Your task to perform on an android device: Open the Play Movies app and select the watchlist tab. Image 0: 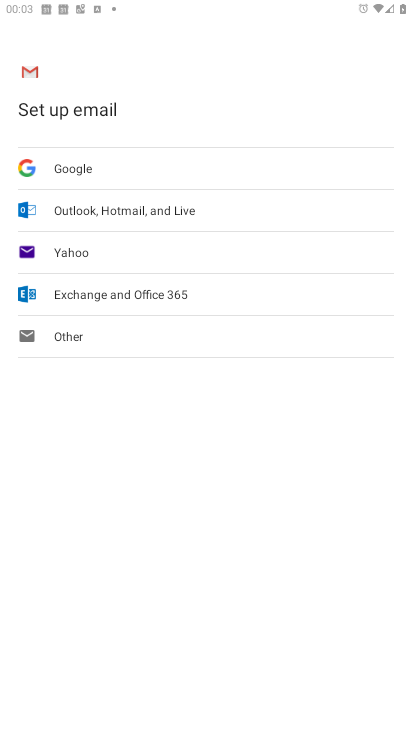
Step 0: drag from (260, 707) to (192, 163)
Your task to perform on an android device: Open the Play Movies app and select the watchlist tab. Image 1: 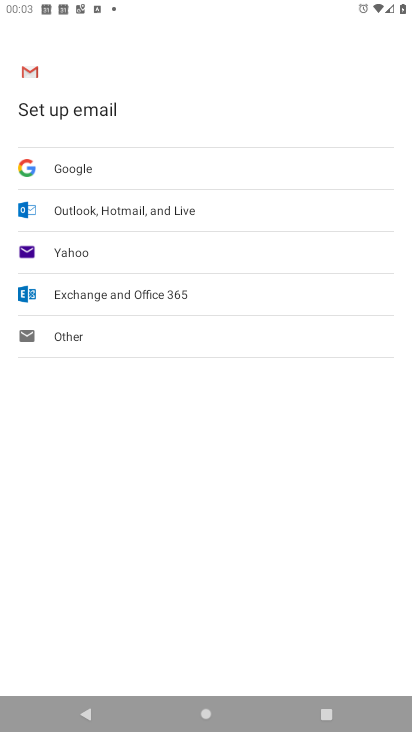
Step 1: press home button
Your task to perform on an android device: Open the Play Movies app and select the watchlist tab. Image 2: 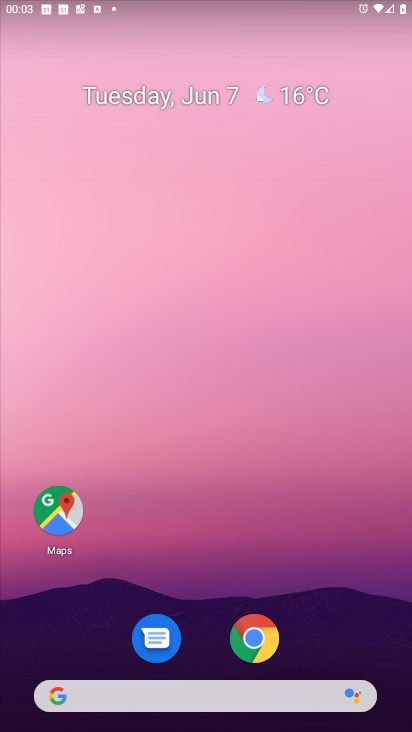
Step 2: drag from (227, 722) to (133, 226)
Your task to perform on an android device: Open the Play Movies app and select the watchlist tab. Image 3: 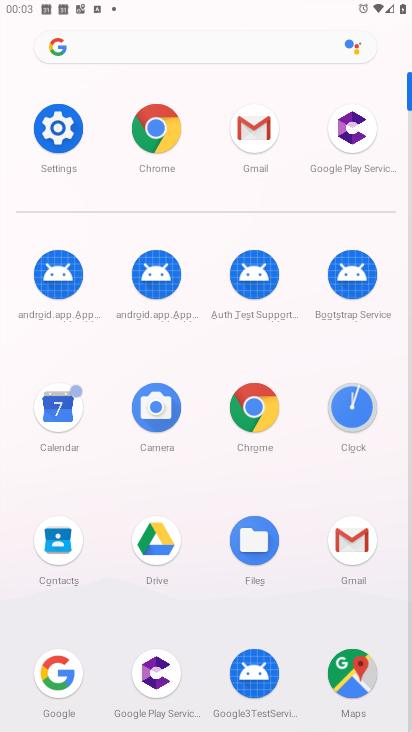
Step 3: drag from (298, 607) to (302, 433)
Your task to perform on an android device: Open the Play Movies app and select the watchlist tab. Image 4: 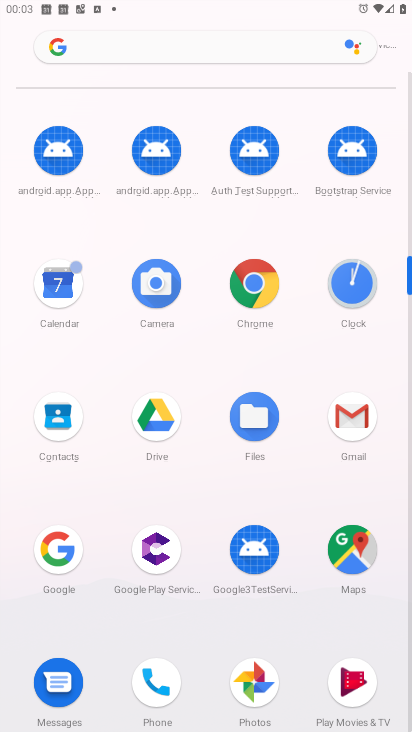
Step 4: click (341, 689)
Your task to perform on an android device: Open the Play Movies app and select the watchlist tab. Image 5: 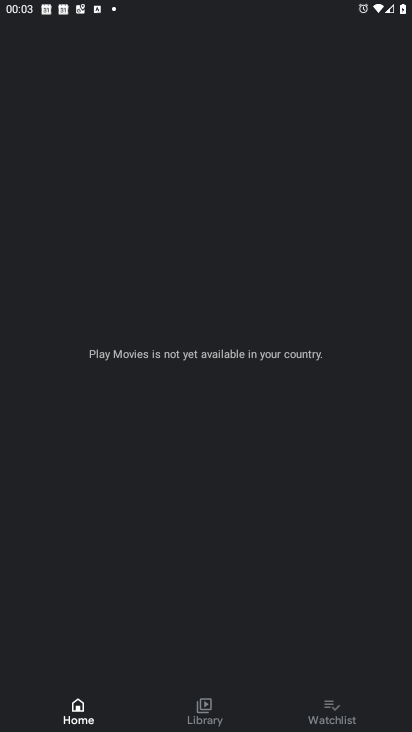
Step 5: click (337, 721)
Your task to perform on an android device: Open the Play Movies app and select the watchlist tab. Image 6: 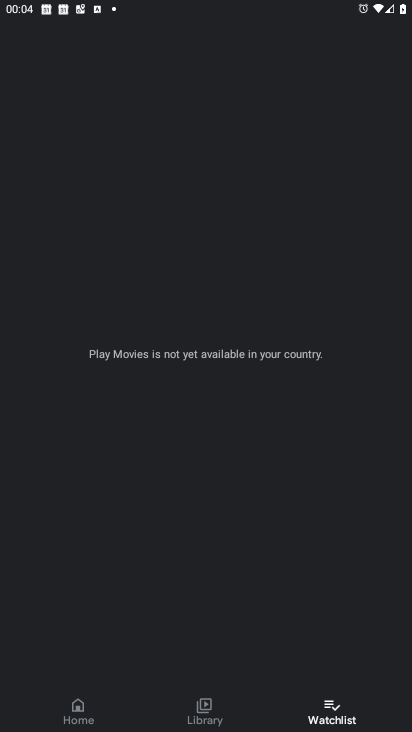
Step 6: task complete